Your task to perform on an android device: make emails show in primary in the gmail app Image 0: 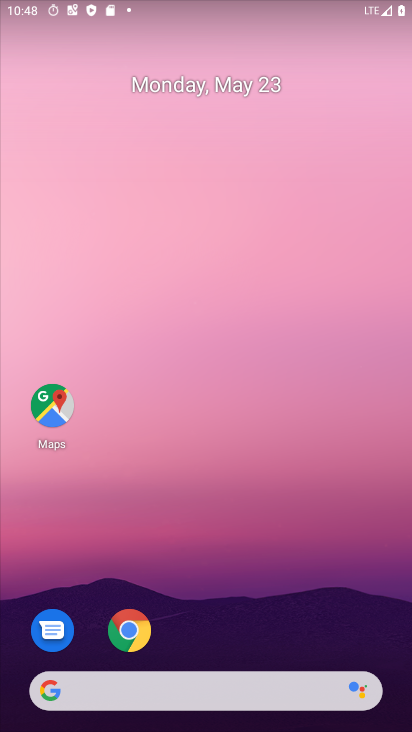
Step 0: drag from (269, 650) to (261, 7)
Your task to perform on an android device: make emails show in primary in the gmail app Image 1: 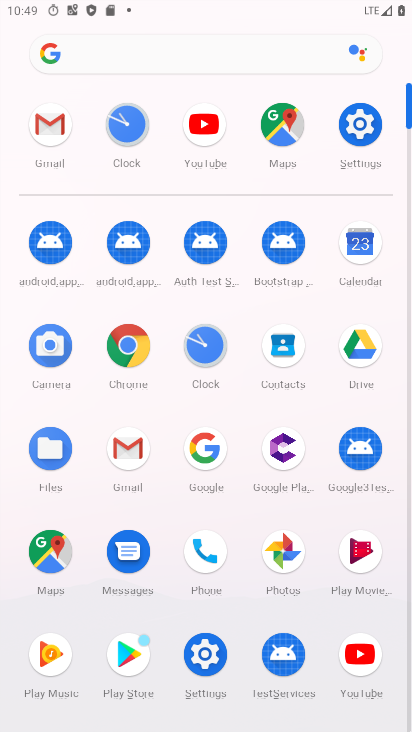
Step 1: click (120, 455)
Your task to perform on an android device: make emails show in primary in the gmail app Image 2: 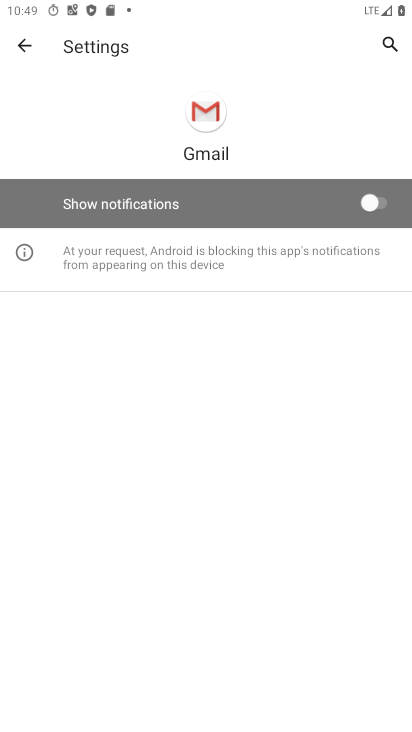
Step 2: click (27, 49)
Your task to perform on an android device: make emails show in primary in the gmail app Image 3: 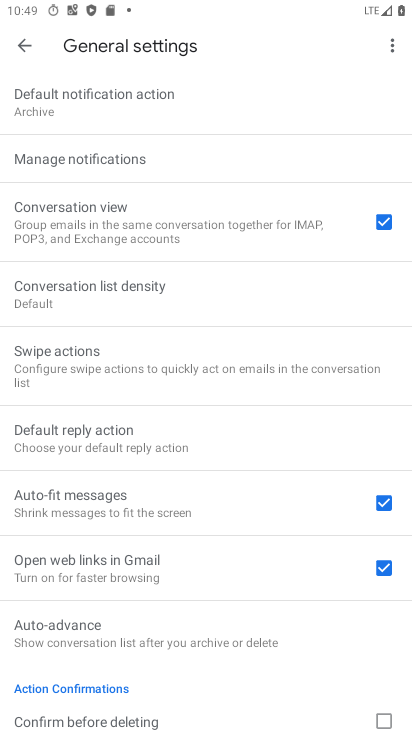
Step 3: click (19, 46)
Your task to perform on an android device: make emails show in primary in the gmail app Image 4: 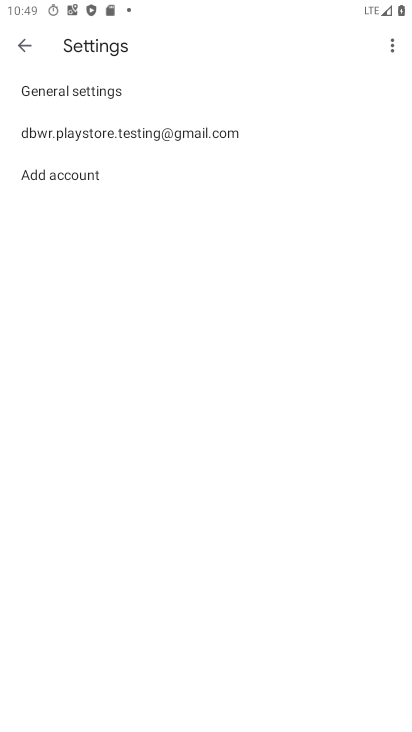
Step 4: click (52, 138)
Your task to perform on an android device: make emails show in primary in the gmail app Image 5: 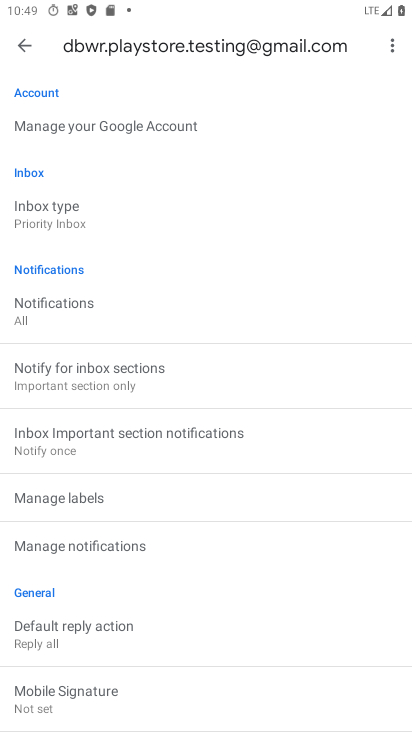
Step 5: task complete